Your task to perform on an android device: Open settings Image 0: 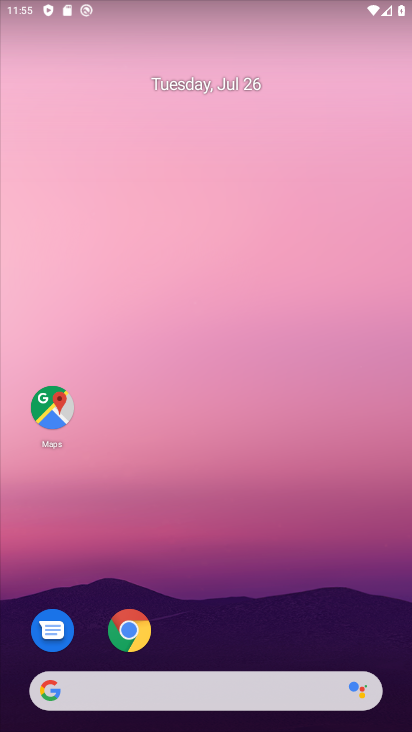
Step 0: drag from (252, 608) to (217, 20)
Your task to perform on an android device: Open settings Image 1: 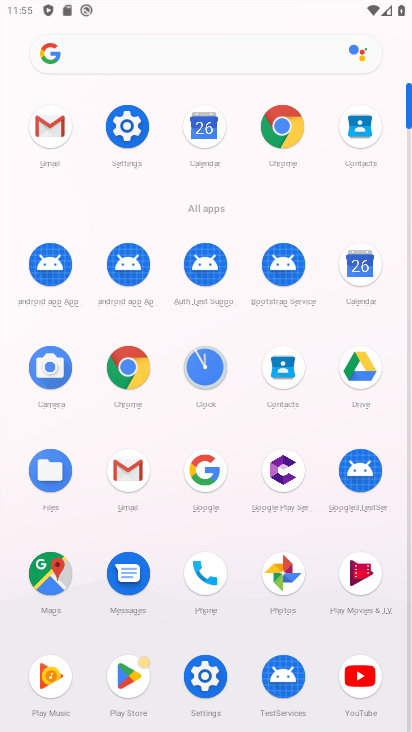
Step 1: click (118, 131)
Your task to perform on an android device: Open settings Image 2: 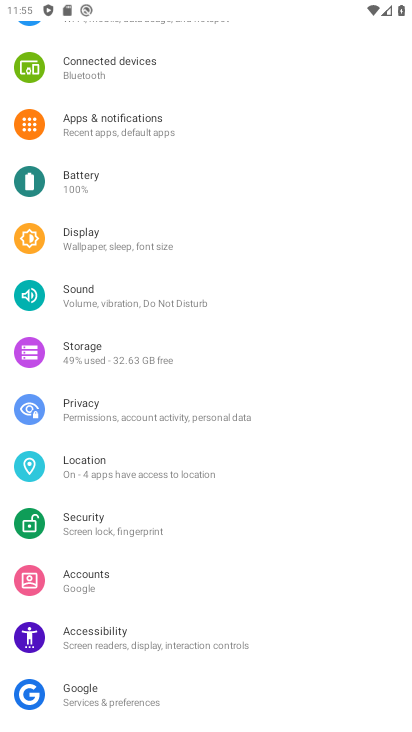
Step 2: task complete